Your task to perform on an android device: Search for macbook air on newegg, select the first entry, add it to the cart, then select checkout. Image 0: 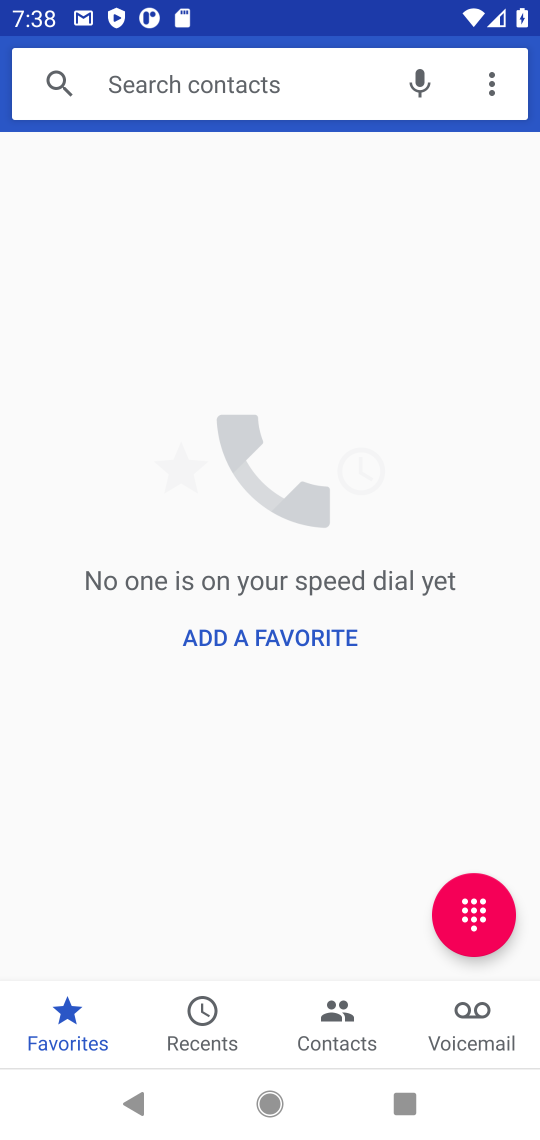
Step 0: press home button
Your task to perform on an android device: Search for macbook air on newegg, select the first entry, add it to the cart, then select checkout. Image 1: 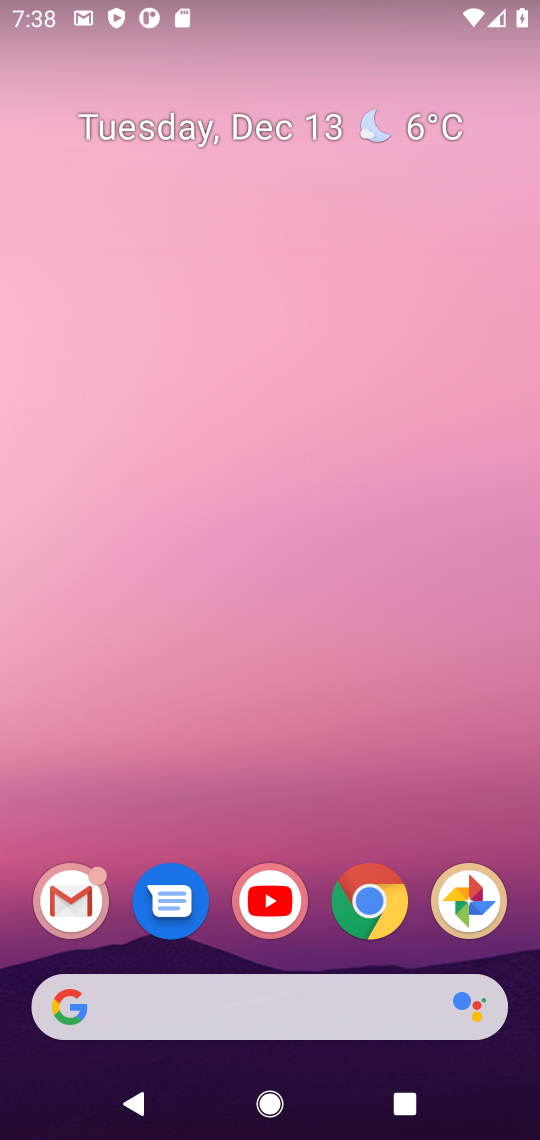
Step 1: click (374, 896)
Your task to perform on an android device: Search for macbook air on newegg, select the first entry, add it to the cart, then select checkout. Image 2: 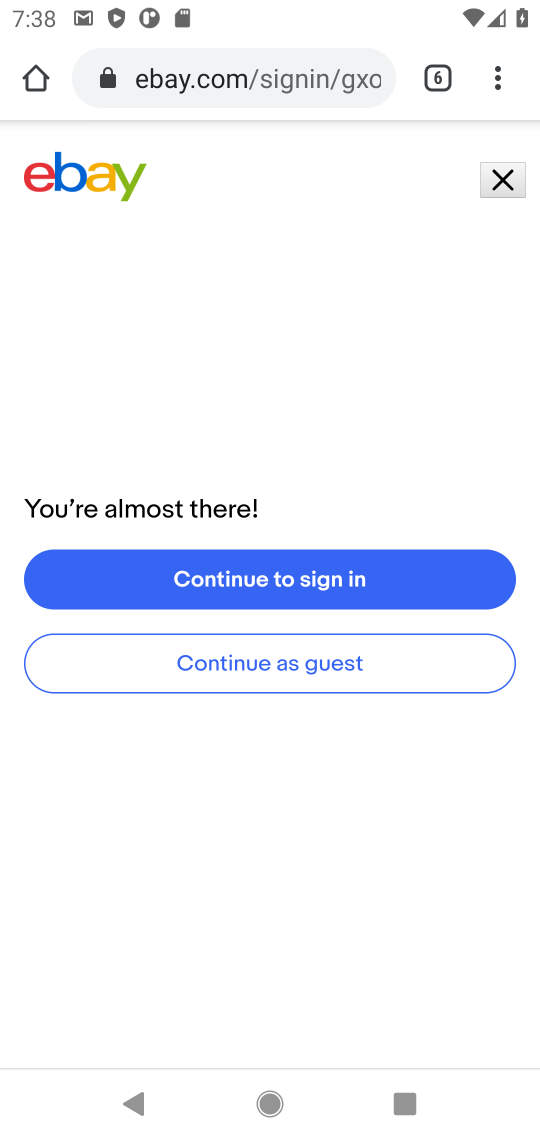
Step 2: click (434, 73)
Your task to perform on an android device: Search for macbook air on newegg, select the first entry, add it to the cart, then select checkout. Image 3: 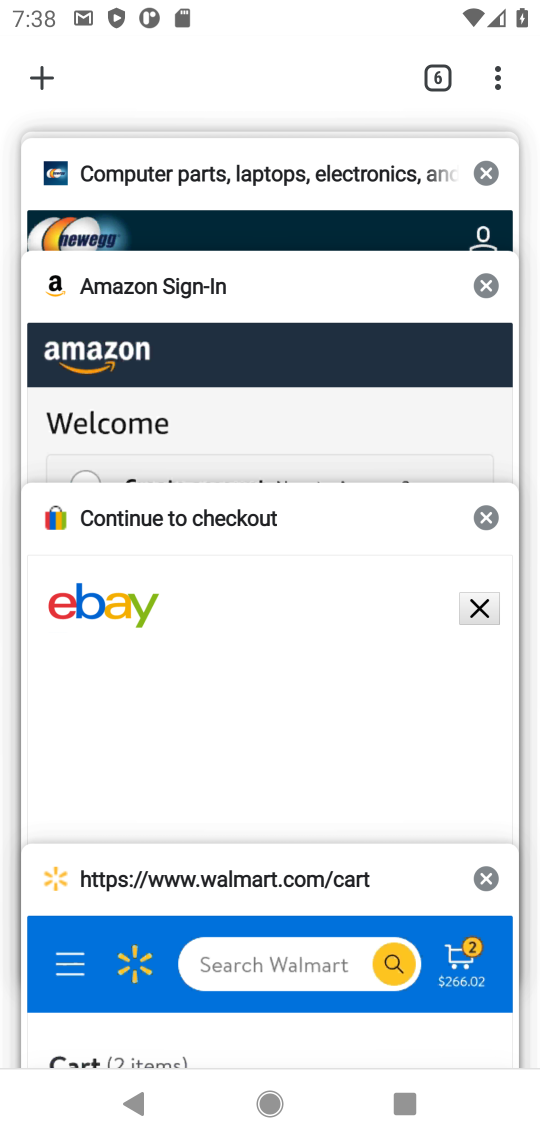
Step 3: click (269, 204)
Your task to perform on an android device: Search for macbook air on newegg, select the first entry, add it to the cart, then select checkout. Image 4: 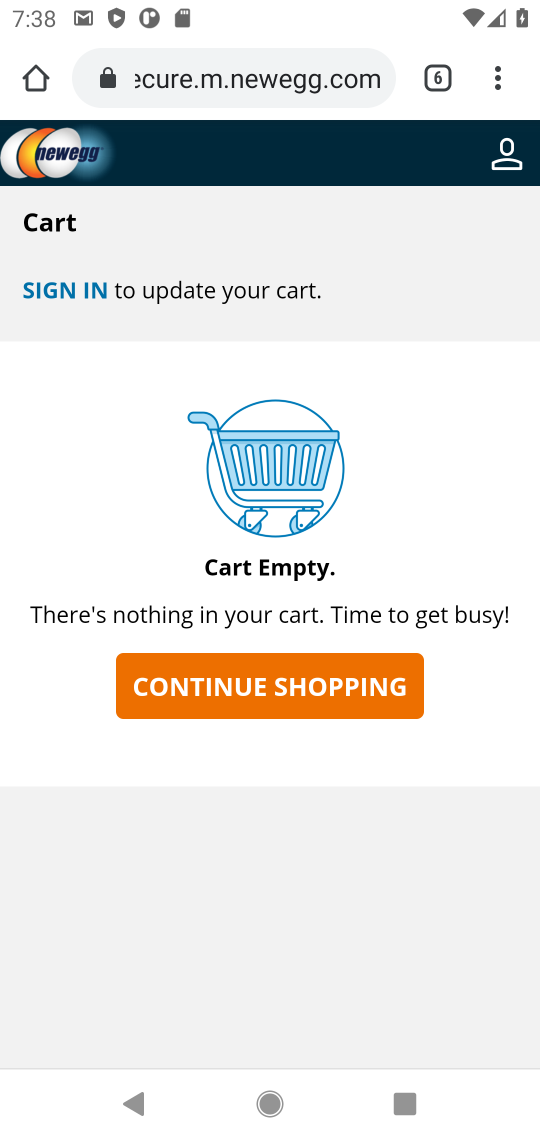
Step 4: click (287, 707)
Your task to perform on an android device: Search for macbook air on newegg, select the first entry, add it to the cart, then select checkout. Image 5: 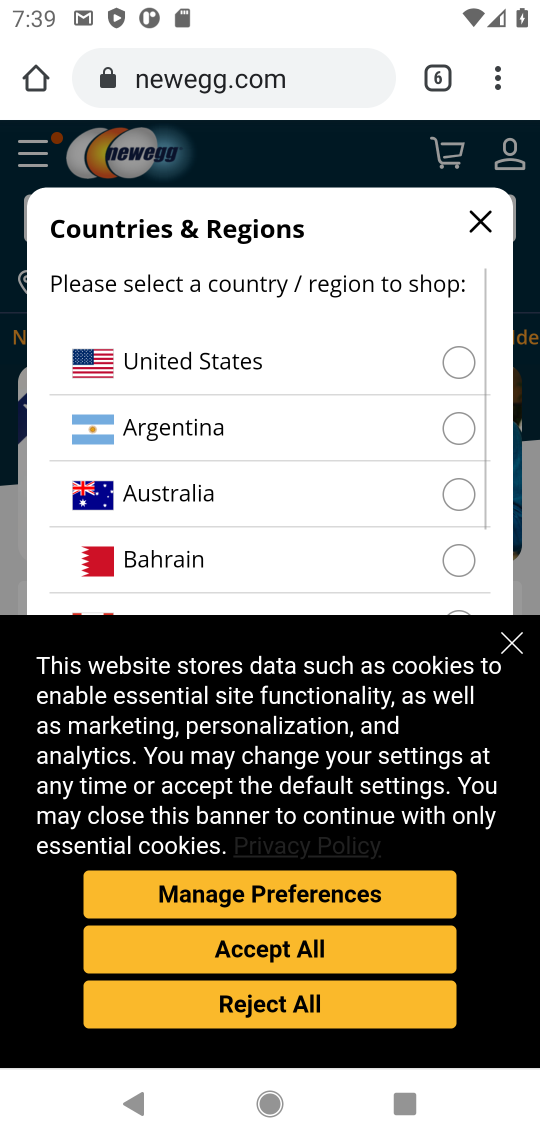
Step 5: click (315, 953)
Your task to perform on an android device: Search for macbook air on newegg, select the first entry, add it to the cart, then select checkout. Image 6: 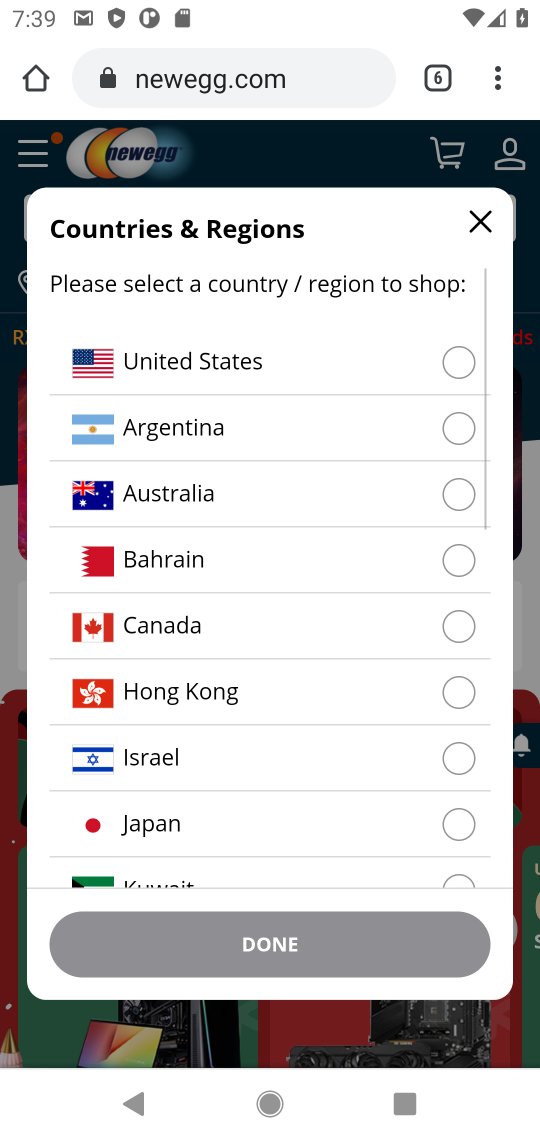
Step 6: click (465, 363)
Your task to perform on an android device: Search for macbook air on newegg, select the first entry, add it to the cart, then select checkout. Image 7: 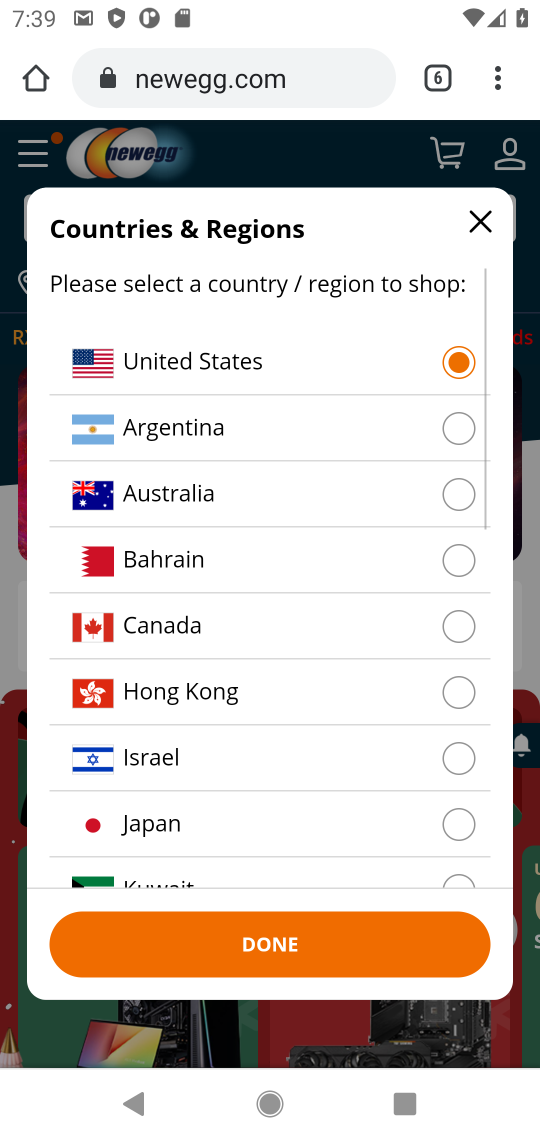
Step 7: click (305, 954)
Your task to perform on an android device: Search for macbook air on newegg, select the first entry, add it to the cart, then select checkout. Image 8: 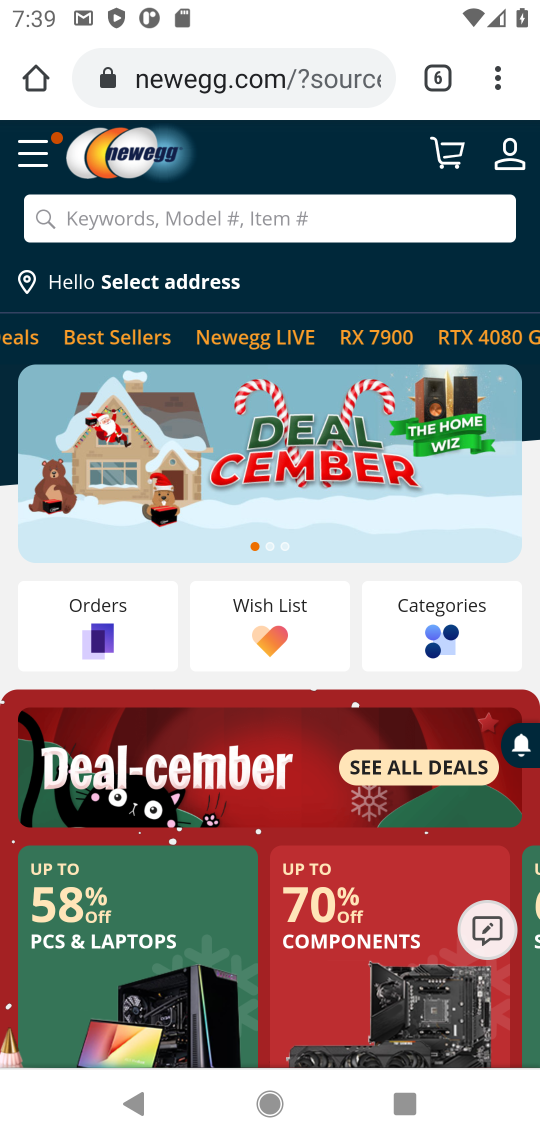
Step 8: click (387, 207)
Your task to perform on an android device: Search for macbook air on newegg, select the first entry, add it to the cart, then select checkout. Image 9: 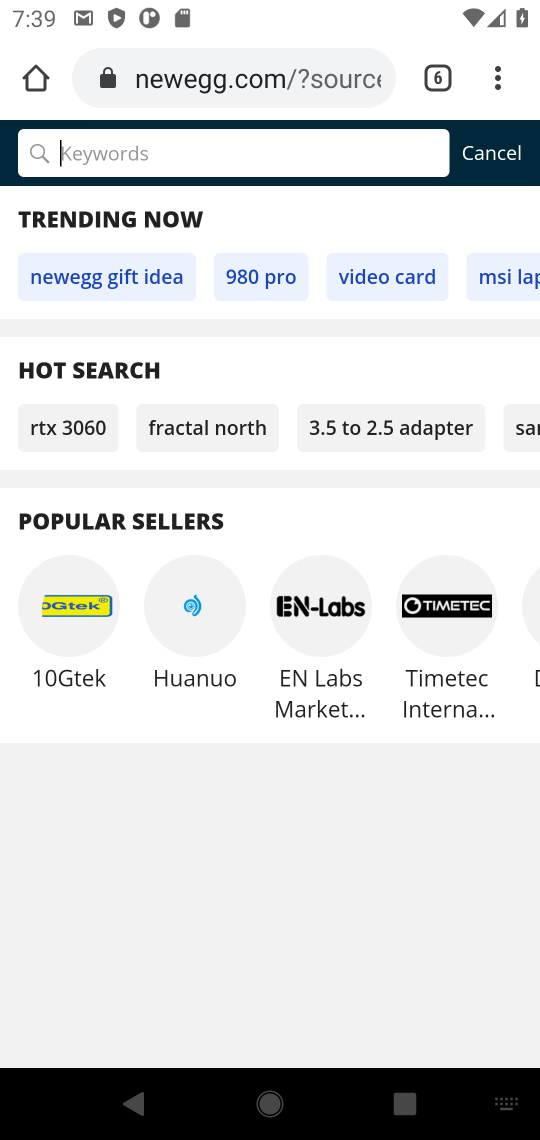
Step 9: type "macbook air"
Your task to perform on an android device: Search for macbook air on newegg, select the first entry, add it to the cart, then select checkout. Image 10: 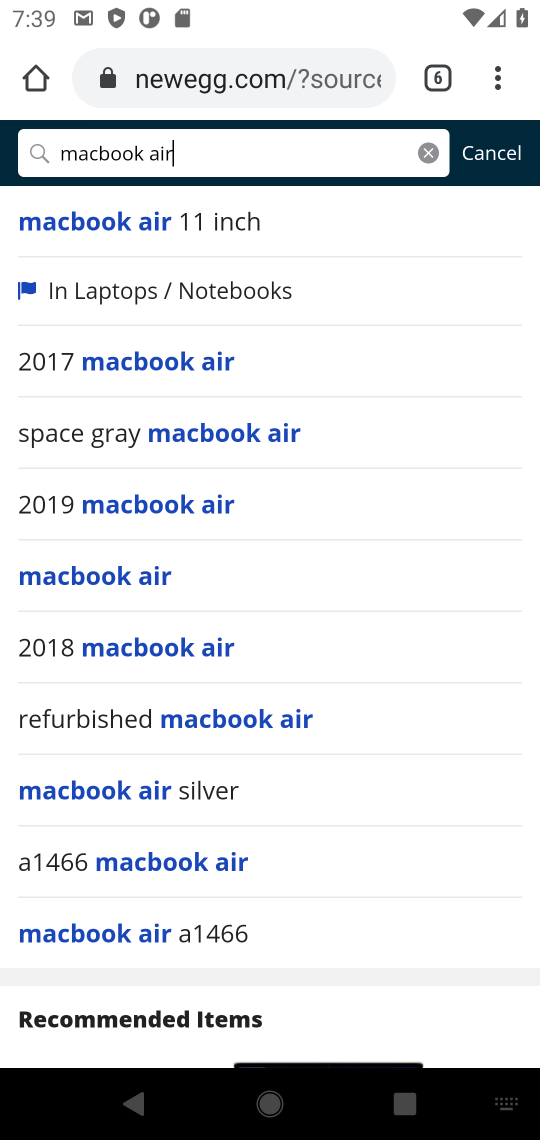
Step 10: click (158, 219)
Your task to perform on an android device: Search for macbook air on newegg, select the first entry, add it to the cart, then select checkout. Image 11: 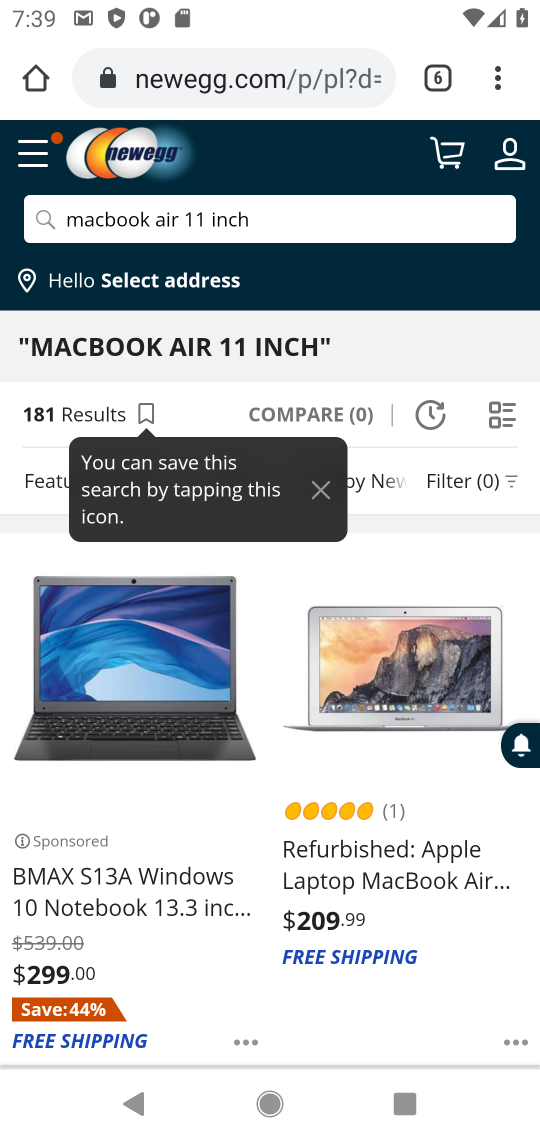
Step 11: drag from (191, 1040) to (290, 349)
Your task to perform on an android device: Search for macbook air on newegg, select the first entry, add it to the cart, then select checkout. Image 12: 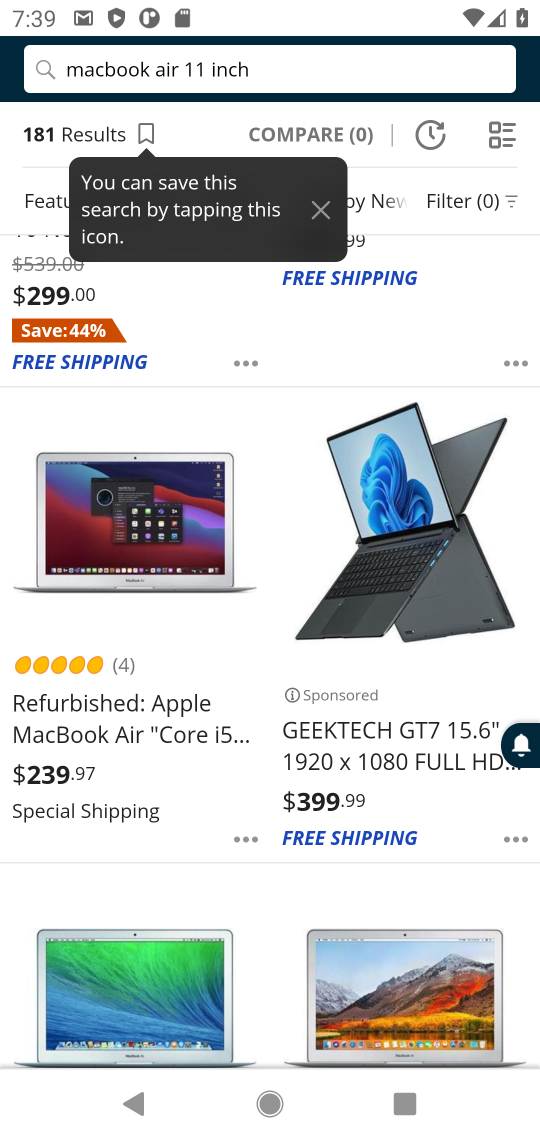
Step 12: drag from (189, 818) to (418, 34)
Your task to perform on an android device: Search for macbook air on newegg, select the first entry, add it to the cart, then select checkout. Image 13: 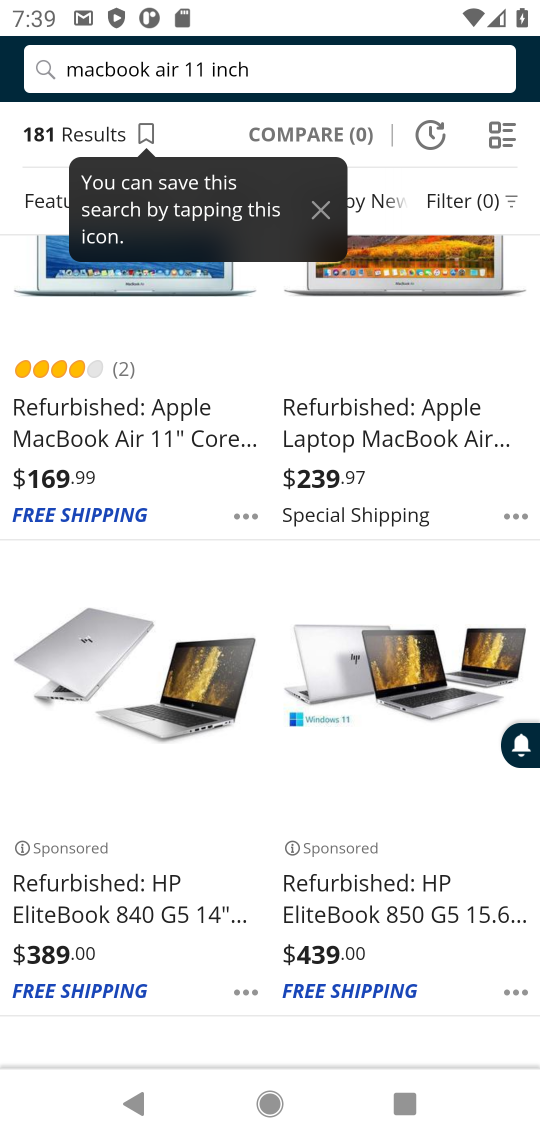
Step 13: click (164, 423)
Your task to perform on an android device: Search for macbook air on newegg, select the first entry, add it to the cart, then select checkout. Image 14: 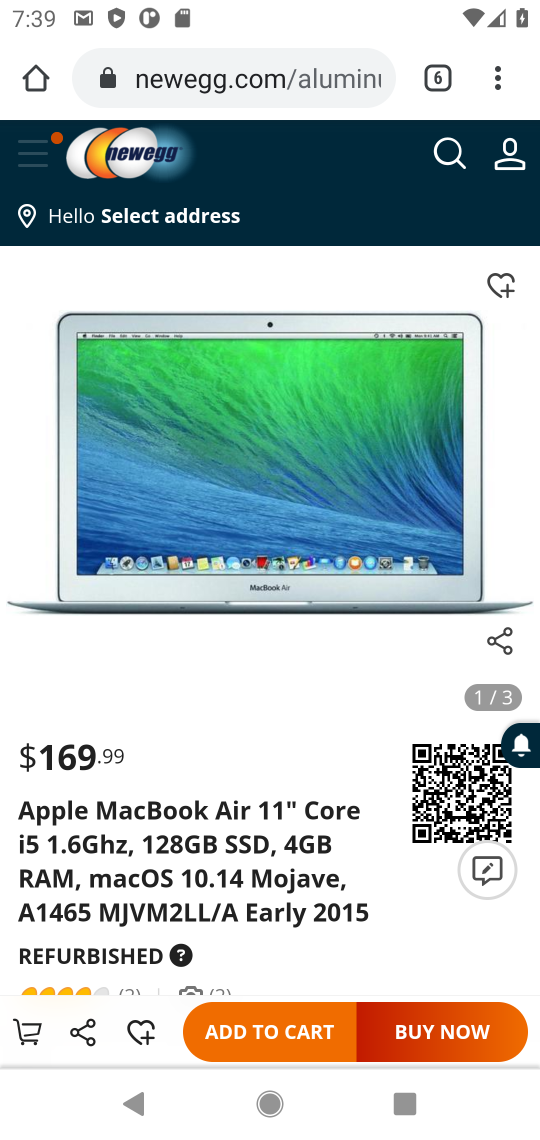
Step 14: click (272, 1037)
Your task to perform on an android device: Search for macbook air on newegg, select the first entry, add it to the cart, then select checkout. Image 15: 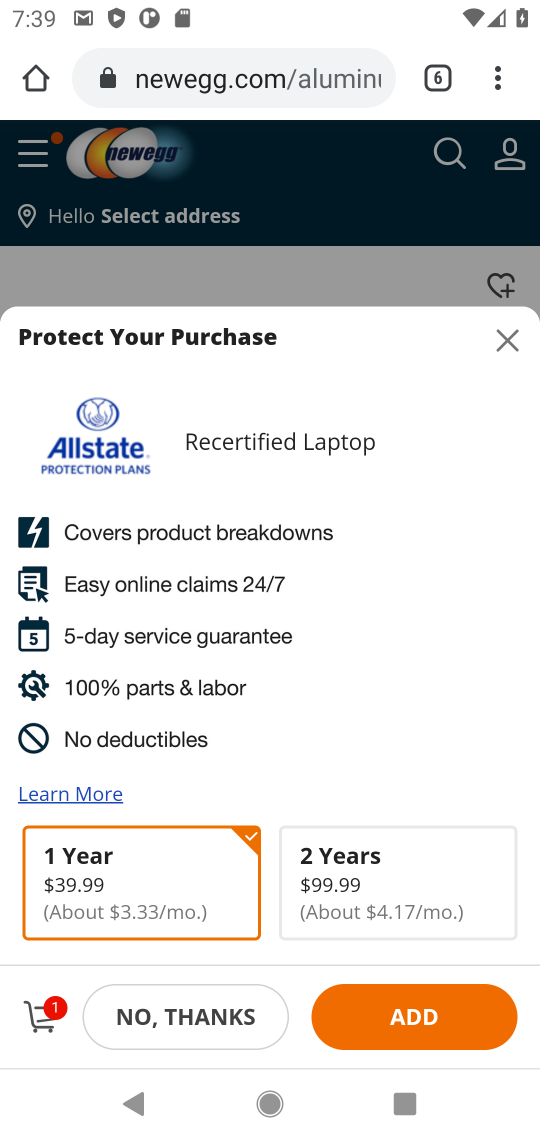
Step 15: click (203, 1011)
Your task to perform on an android device: Search for macbook air on newegg, select the first entry, add it to the cart, then select checkout. Image 16: 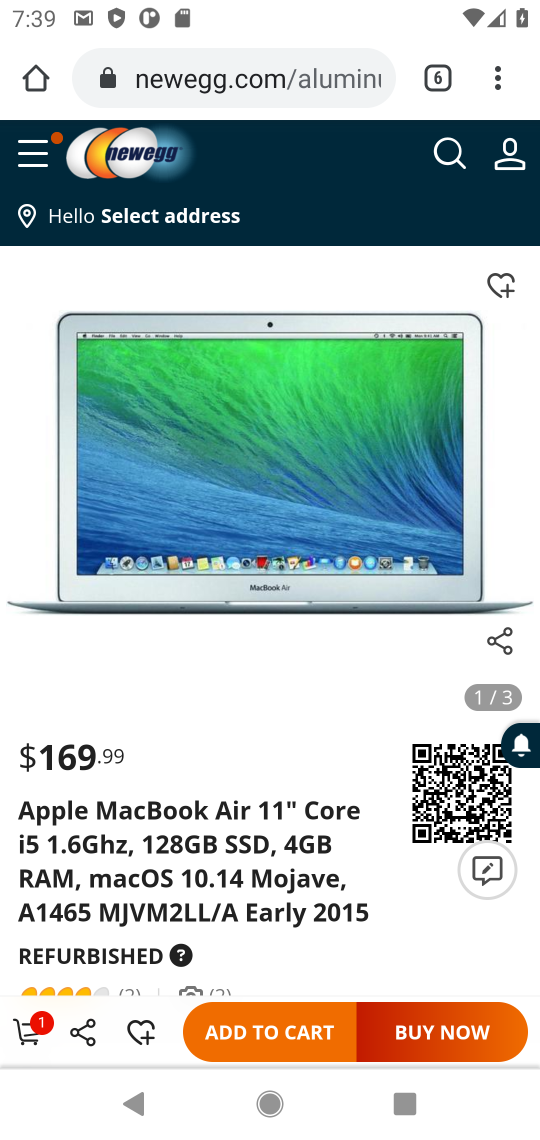
Step 16: click (14, 1039)
Your task to perform on an android device: Search for macbook air on newegg, select the first entry, add it to the cart, then select checkout. Image 17: 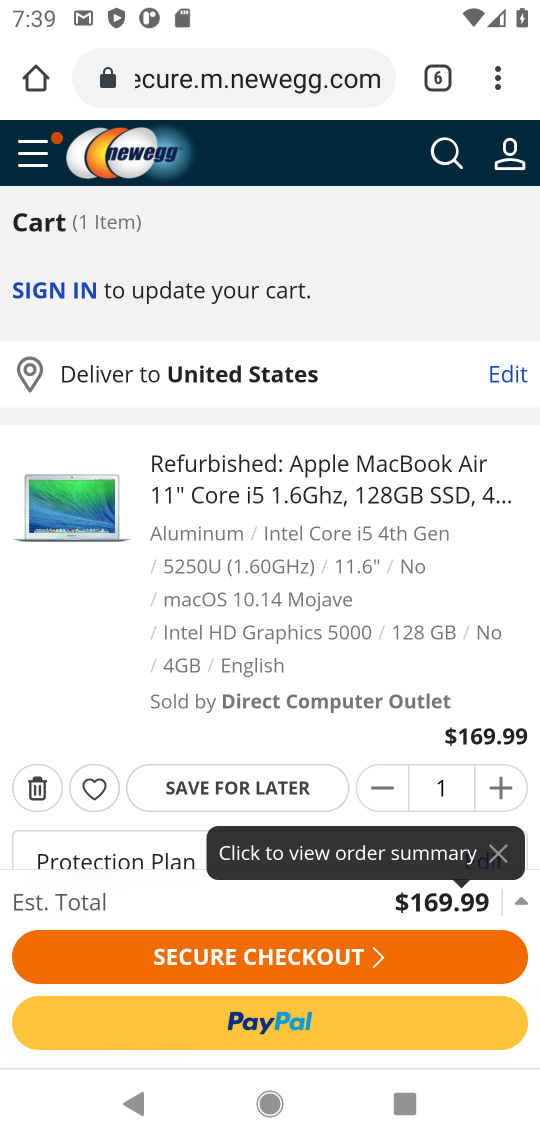
Step 17: click (274, 949)
Your task to perform on an android device: Search for macbook air on newegg, select the first entry, add it to the cart, then select checkout. Image 18: 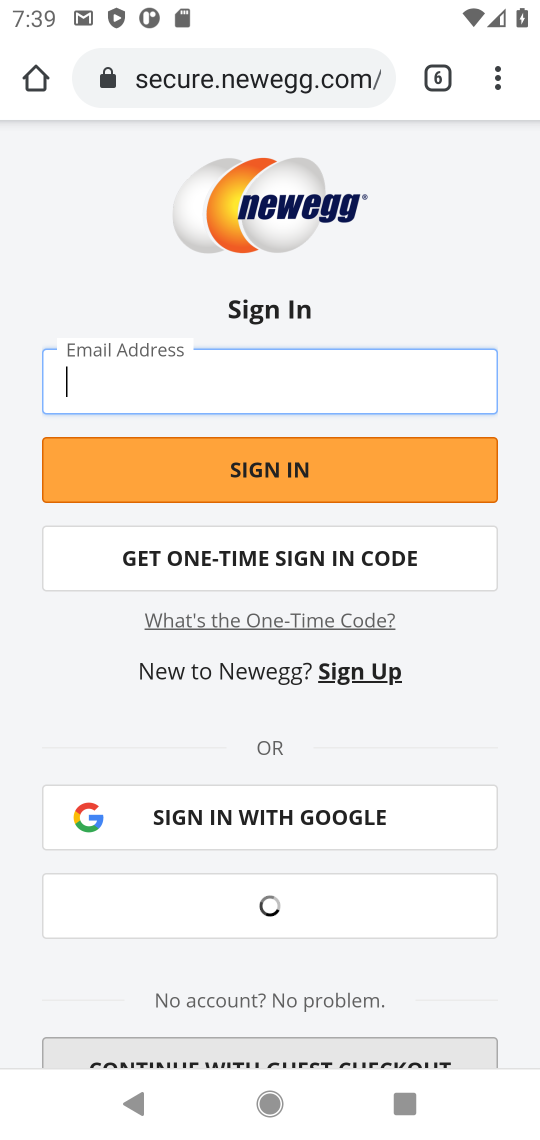
Step 18: task complete